Your task to perform on an android device: turn on translation in the chrome app Image 0: 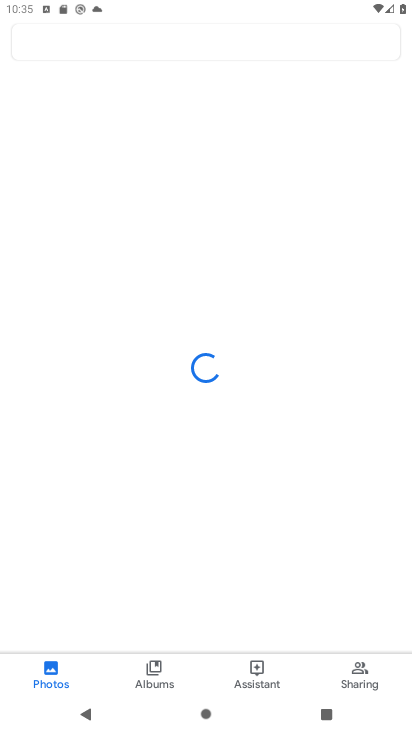
Step 0: press home button
Your task to perform on an android device: turn on translation in the chrome app Image 1: 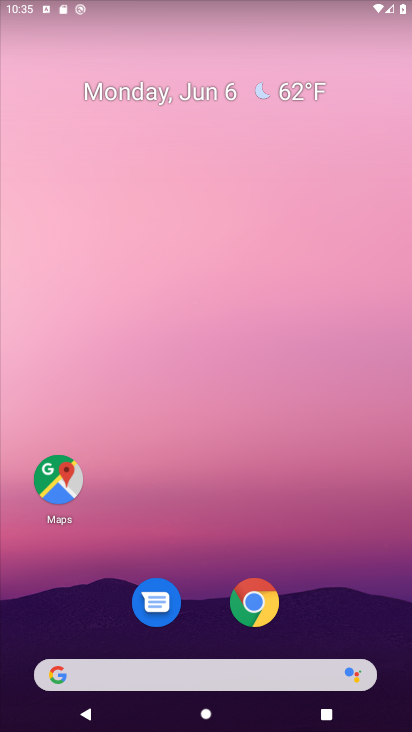
Step 1: drag from (289, 623) to (291, 239)
Your task to perform on an android device: turn on translation in the chrome app Image 2: 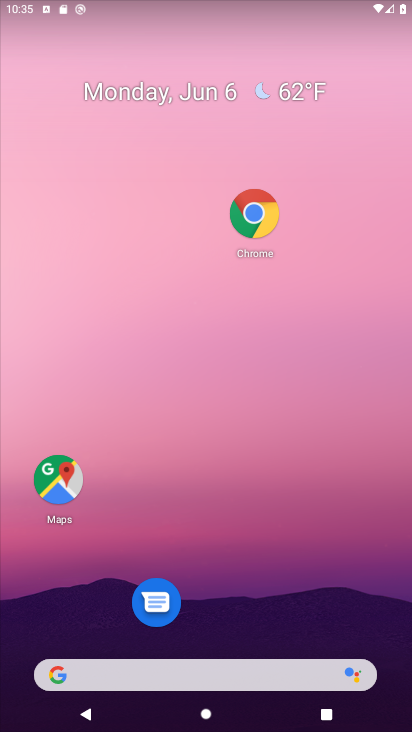
Step 2: drag from (295, 456) to (346, 167)
Your task to perform on an android device: turn on translation in the chrome app Image 3: 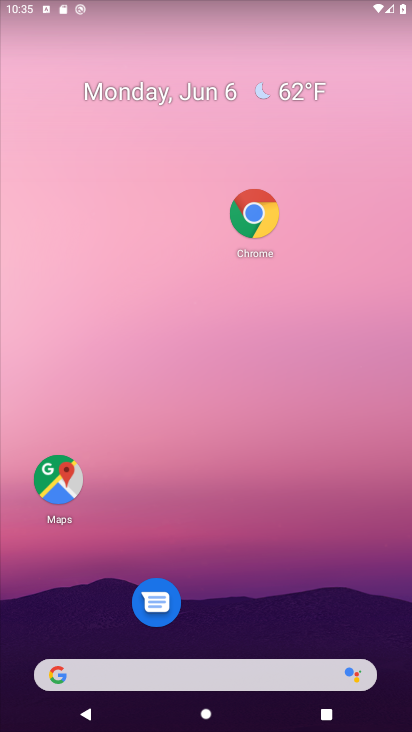
Step 3: drag from (318, 469) to (373, 180)
Your task to perform on an android device: turn on translation in the chrome app Image 4: 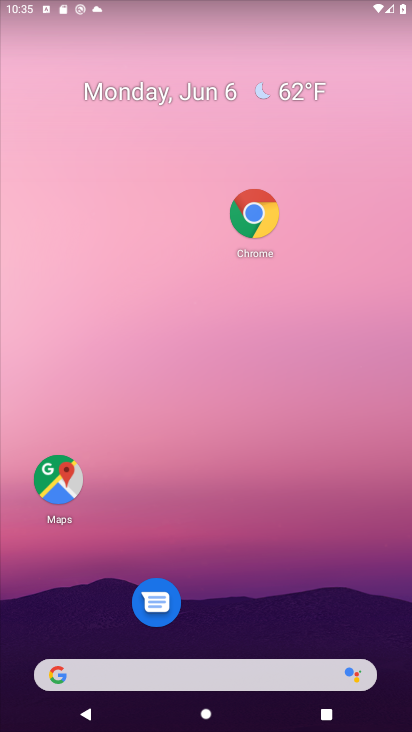
Step 4: drag from (312, 573) to (408, 417)
Your task to perform on an android device: turn on translation in the chrome app Image 5: 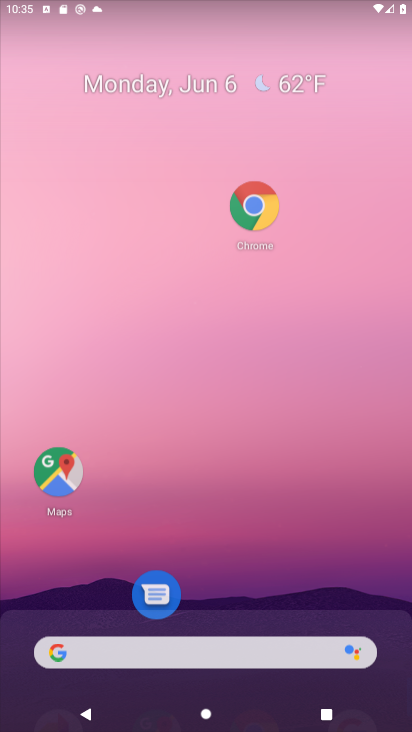
Step 5: drag from (231, 575) to (222, 447)
Your task to perform on an android device: turn on translation in the chrome app Image 6: 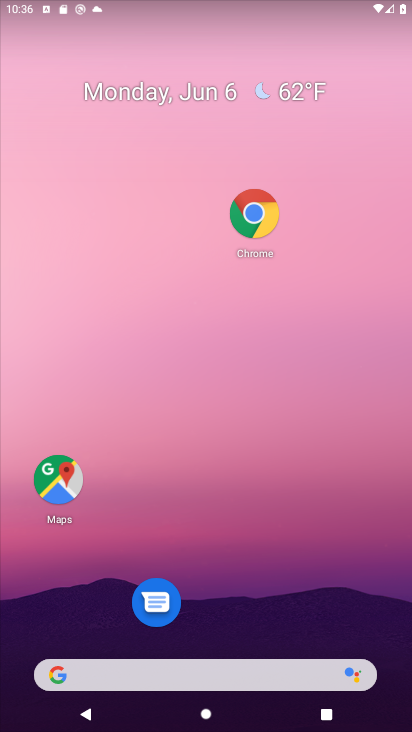
Step 6: click (262, 235)
Your task to perform on an android device: turn on translation in the chrome app Image 7: 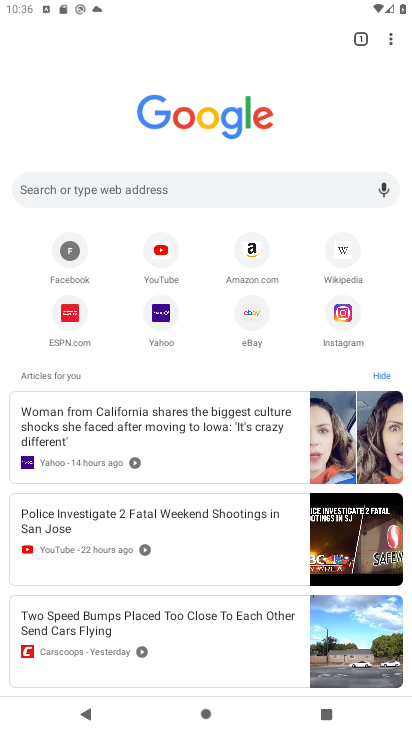
Step 7: click (391, 39)
Your task to perform on an android device: turn on translation in the chrome app Image 8: 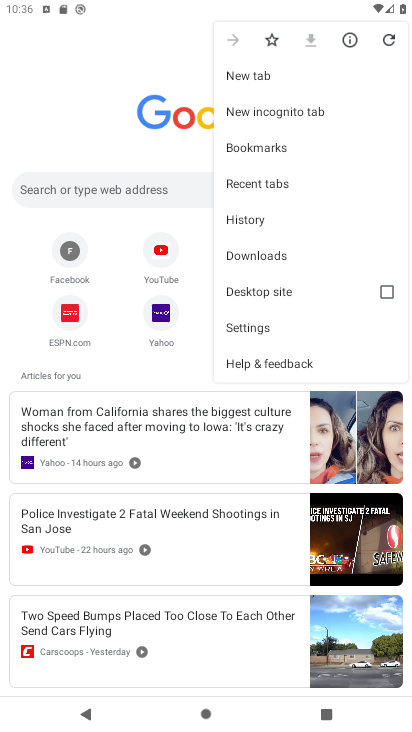
Step 8: task complete